Your task to perform on an android device: see creations saved in the google photos Image 0: 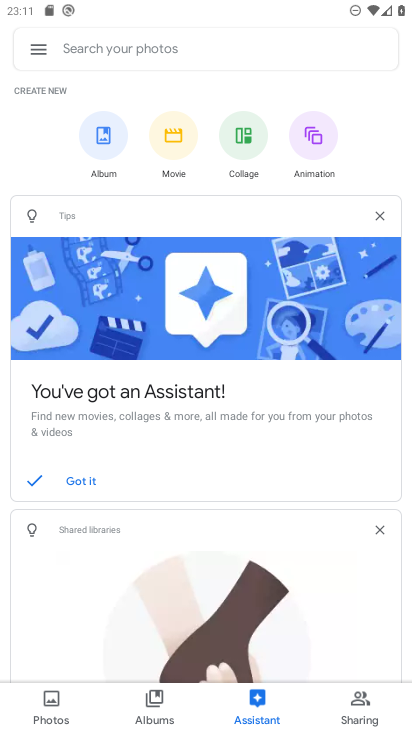
Step 0: click (146, 54)
Your task to perform on an android device: see creations saved in the google photos Image 1: 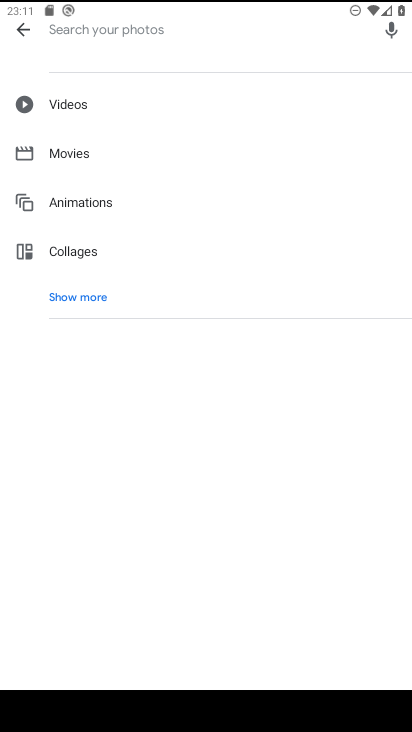
Step 1: click (87, 300)
Your task to perform on an android device: see creations saved in the google photos Image 2: 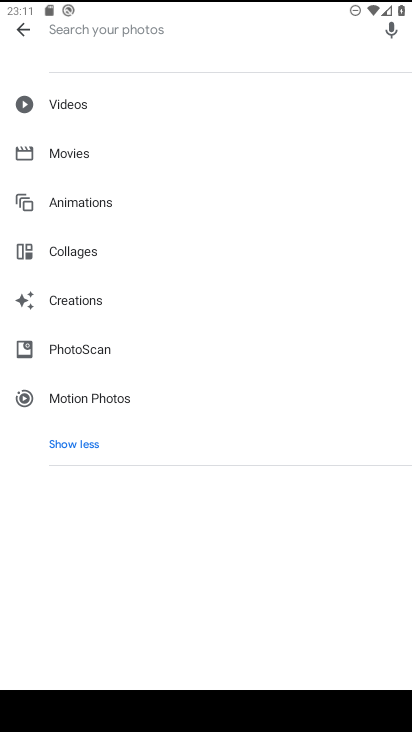
Step 2: click (103, 311)
Your task to perform on an android device: see creations saved in the google photos Image 3: 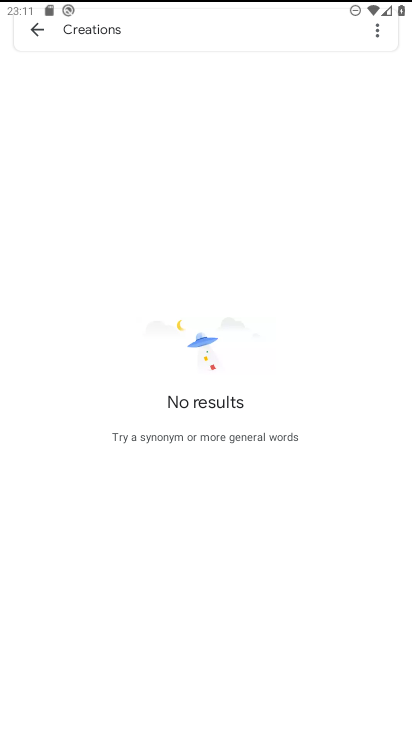
Step 3: task complete